Your task to perform on an android device: turn off sleep mode Image 0: 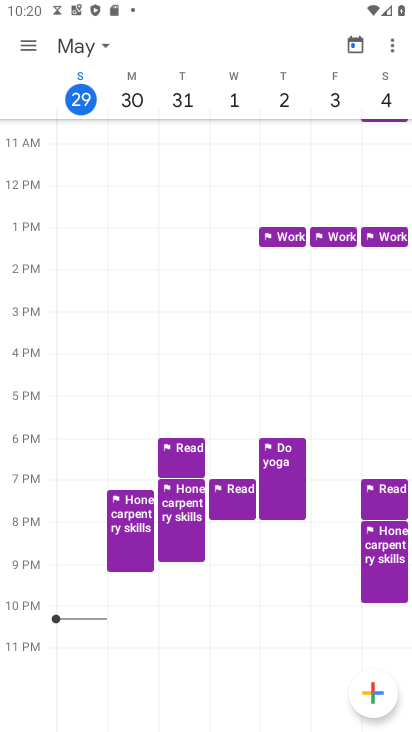
Step 0: press home button
Your task to perform on an android device: turn off sleep mode Image 1: 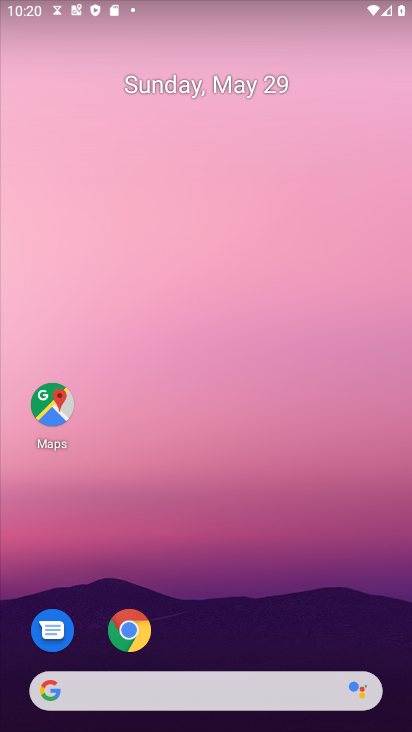
Step 1: drag from (272, 626) to (335, 38)
Your task to perform on an android device: turn off sleep mode Image 2: 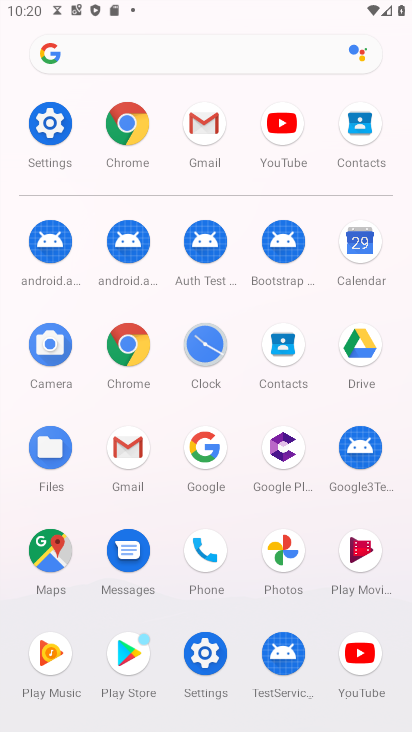
Step 2: click (43, 117)
Your task to perform on an android device: turn off sleep mode Image 3: 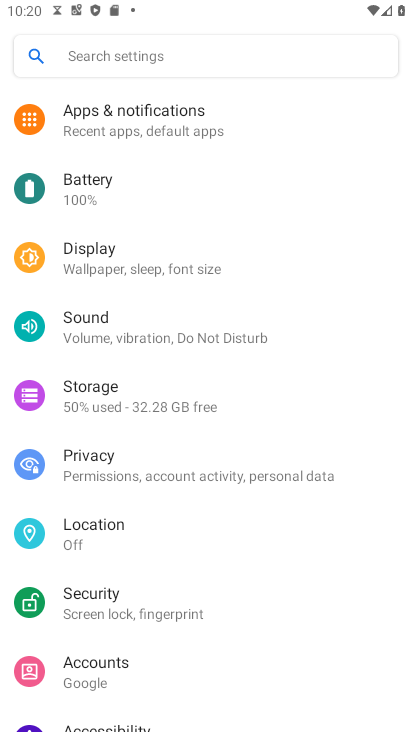
Step 3: click (177, 264)
Your task to perform on an android device: turn off sleep mode Image 4: 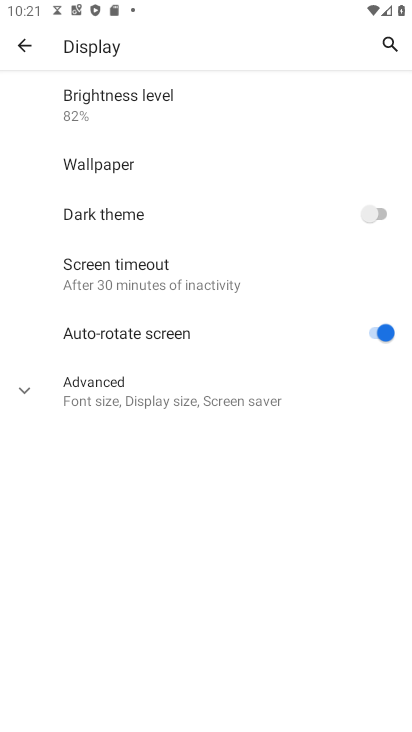
Step 4: click (135, 388)
Your task to perform on an android device: turn off sleep mode Image 5: 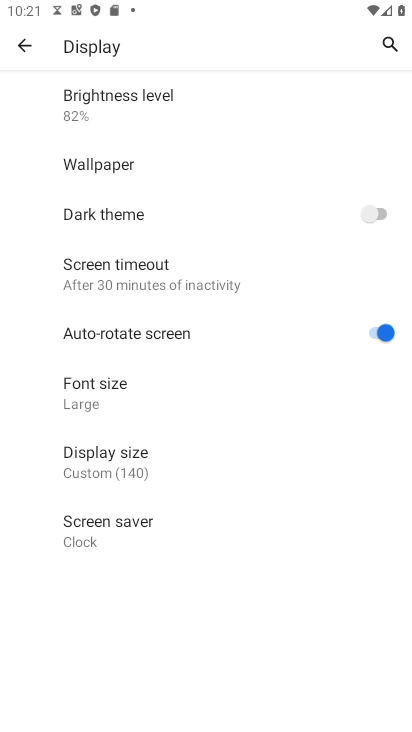
Step 5: task complete